Your task to perform on an android device: open chrome and create a bookmark for the current page Image 0: 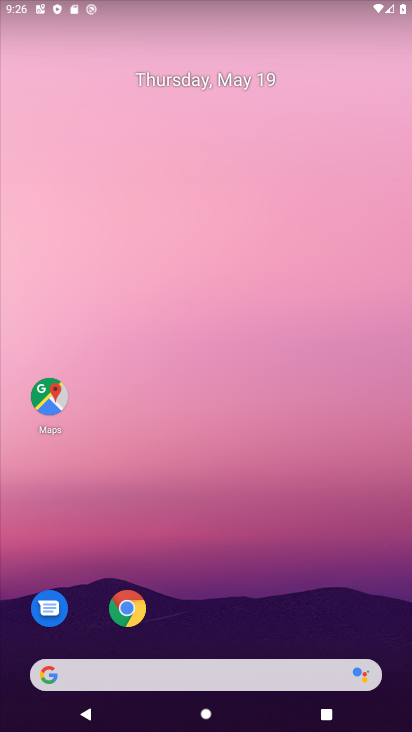
Step 0: click (129, 611)
Your task to perform on an android device: open chrome and create a bookmark for the current page Image 1: 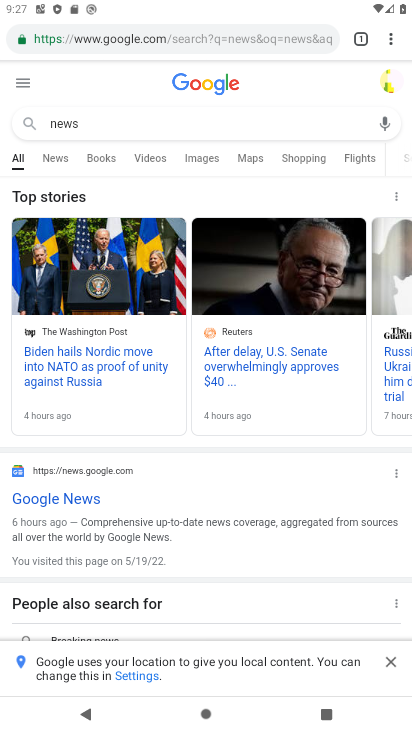
Step 1: click (387, 41)
Your task to perform on an android device: open chrome and create a bookmark for the current page Image 2: 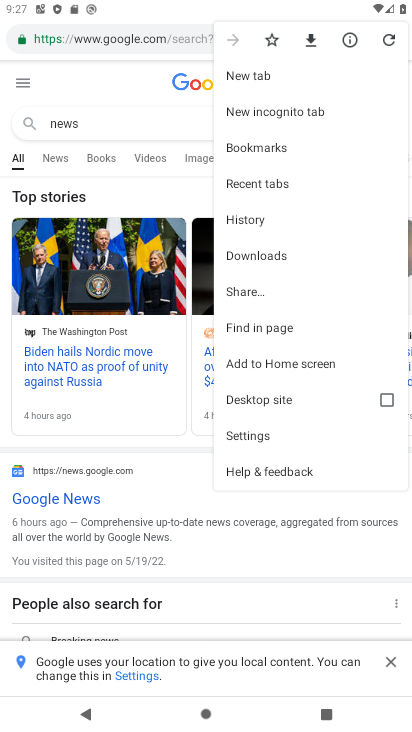
Step 2: click (270, 38)
Your task to perform on an android device: open chrome and create a bookmark for the current page Image 3: 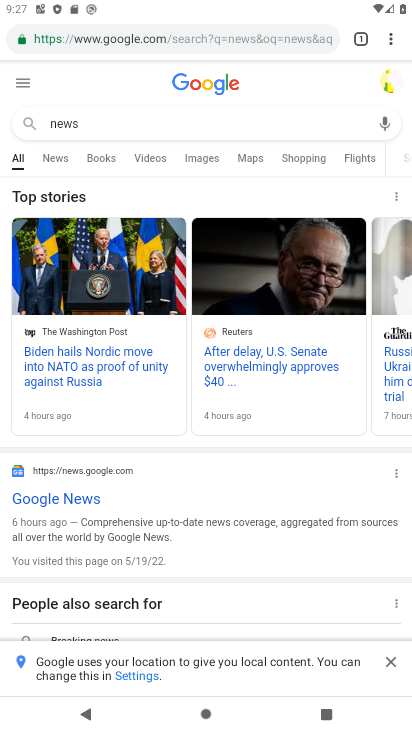
Step 3: task complete